Your task to perform on an android device: Show me the alarms in the clock app Image 0: 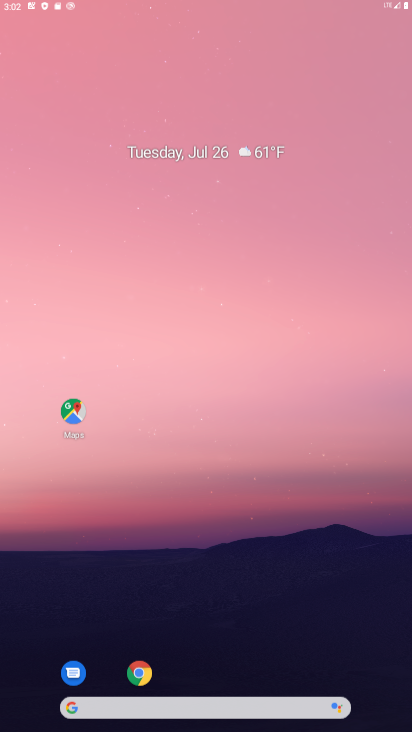
Step 0: click (268, 382)
Your task to perform on an android device: Show me the alarms in the clock app Image 1: 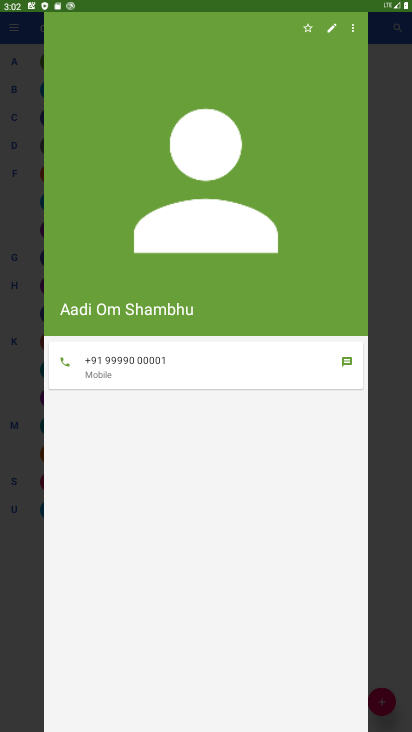
Step 1: drag from (200, 616) to (242, 343)
Your task to perform on an android device: Show me the alarms in the clock app Image 2: 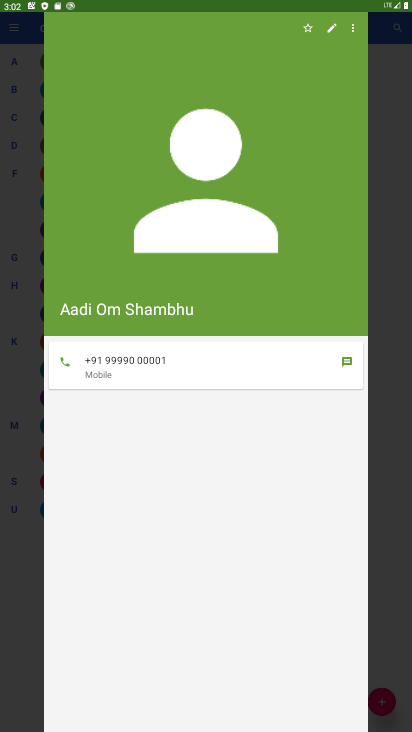
Step 2: press home button
Your task to perform on an android device: Show me the alarms in the clock app Image 3: 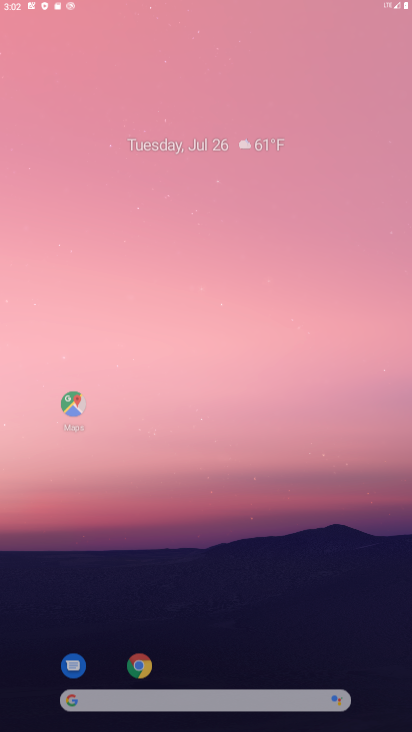
Step 3: drag from (250, 606) to (316, 236)
Your task to perform on an android device: Show me the alarms in the clock app Image 4: 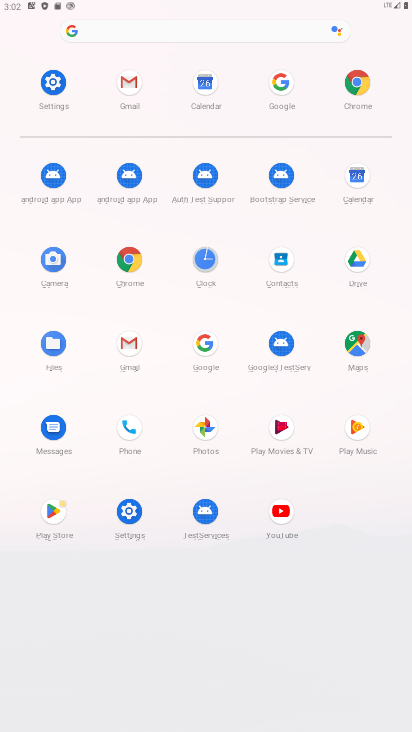
Step 4: click (201, 281)
Your task to perform on an android device: Show me the alarms in the clock app Image 5: 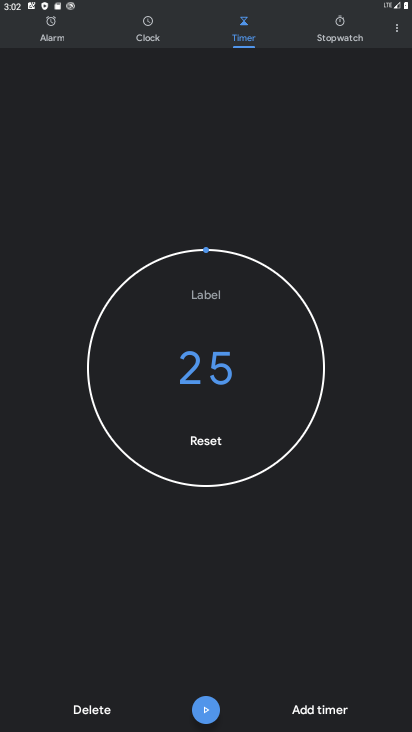
Step 5: drag from (398, 32) to (359, 53)
Your task to perform on an android device: Show me the alarms in the clock app Image 6: 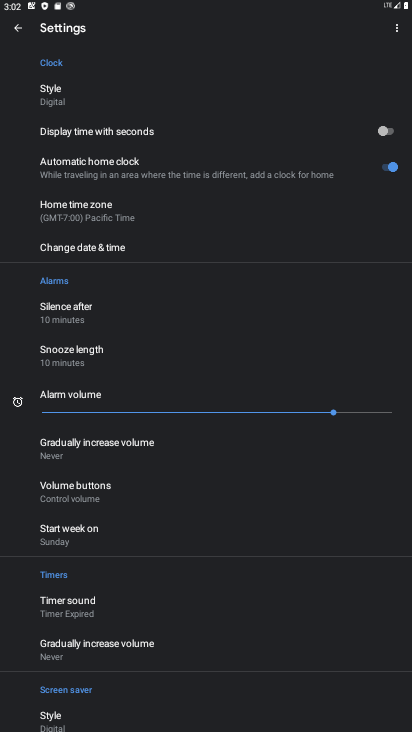
Step 6: click (15, 28)
Your task to perform on an android device: Show me the alarms in the clock app Image 7: 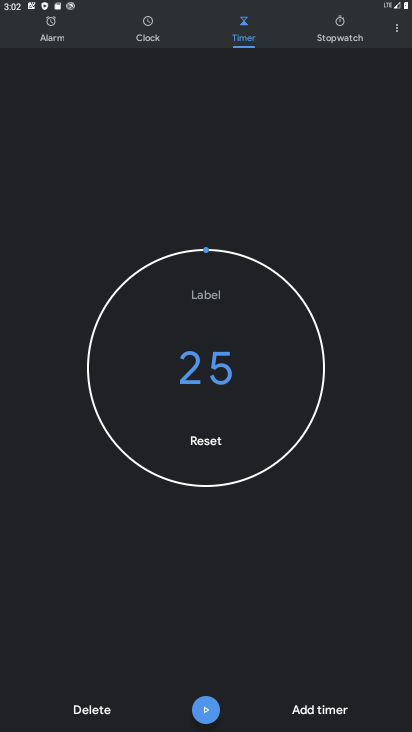
Step 7: click (15, 28)
Your task to perform on an android device: Show me the alarms in the clock app Image 8: 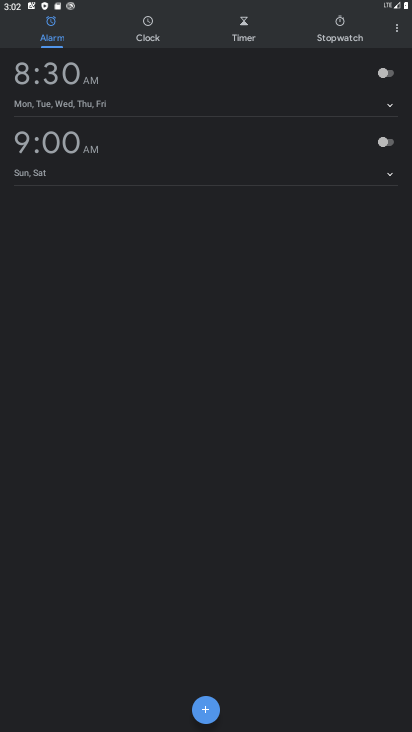
Step 8: task complete